Your task to perform on an android device: make emails show in primary in the gmail app Image 0: 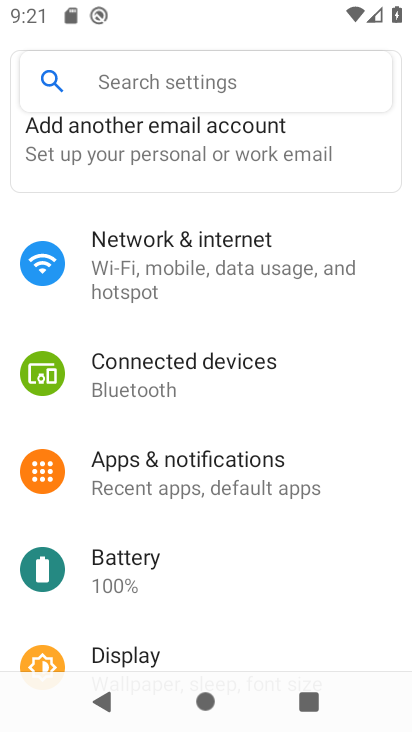
Step 0: press home button
Your task to perform on an android device: make emails show in primary in the gmail app Image 1: 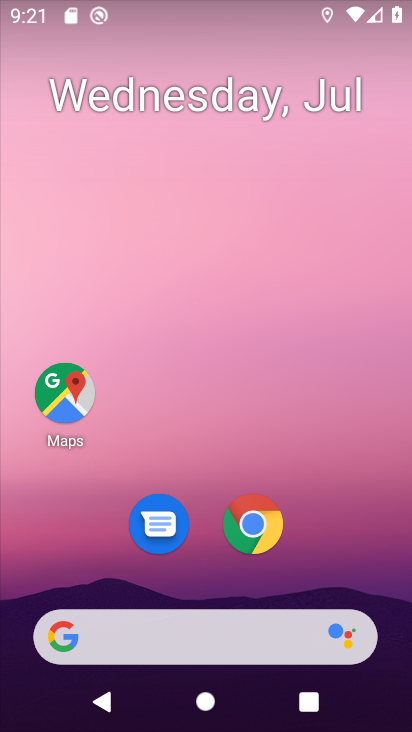
Step 1: drag from (316, 562) to (339, 73)
Your task to perform on an android device: make emails show in primary in the gmail app Image 2: 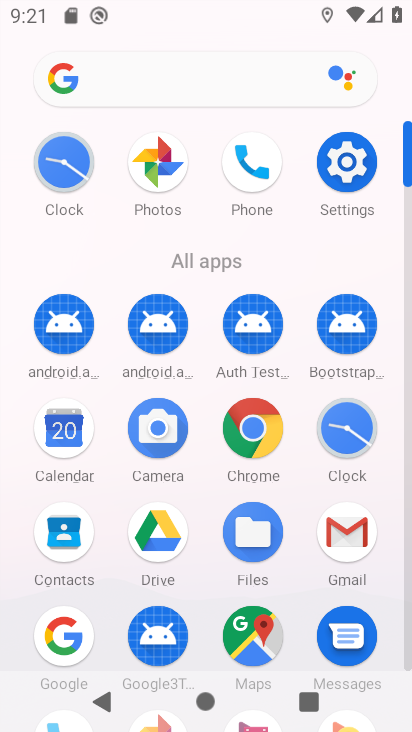
Step 2: click (331, 527)
Your task to perform on an android device: make emails show in primary in the gmail app Image 3: 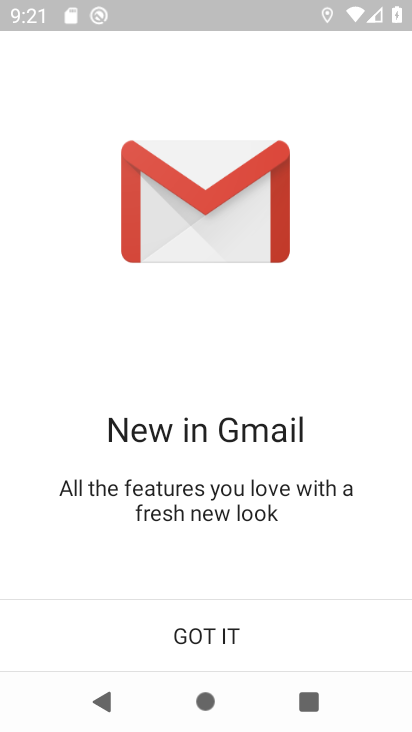
Step 3: click (229, 632)
Your task to perform on an android device: make emails show in primary in the gmail app Image 4: 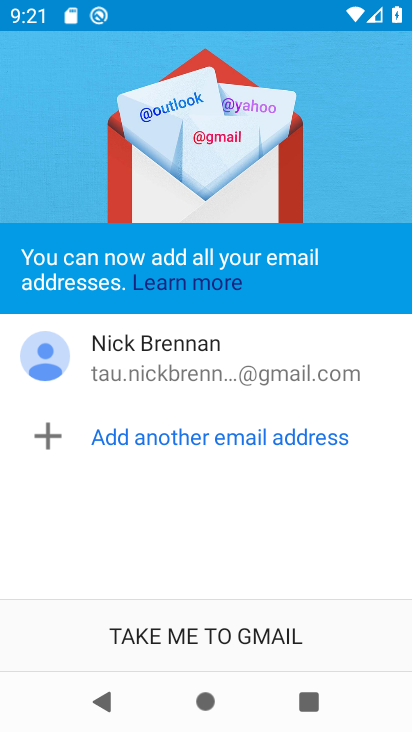
Step 4: click (229, 630)
Your task to perform on an android device: make emails show in primary in the gmail app Image 5: 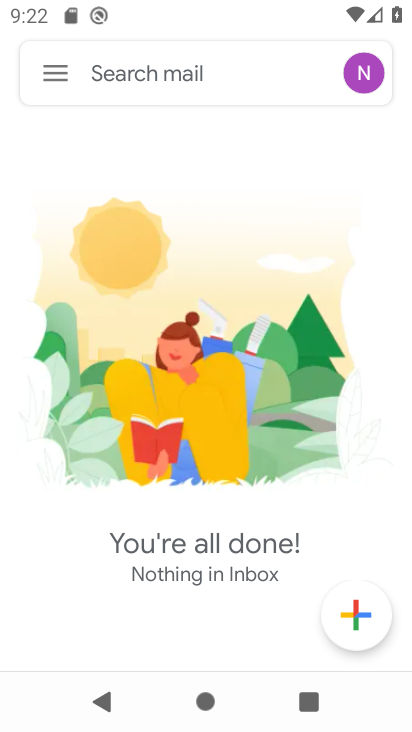
Step 5: click (54, 71)
Your task to perform on an android device: make emails show in primary in the gmail app Image 6: 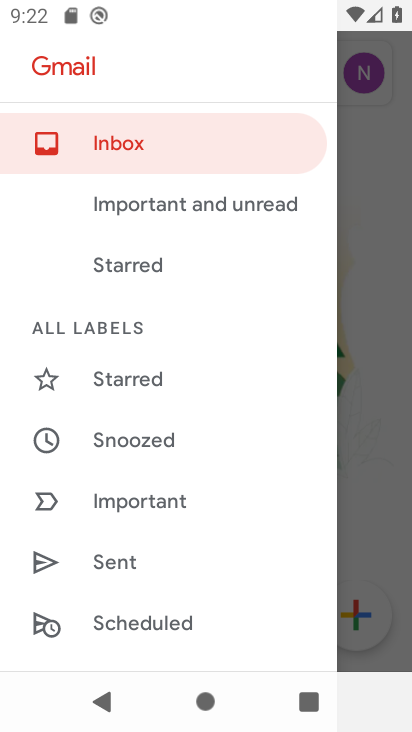
Step 6: drag from (185, 557) to (205, 119)
Your task to perform on an android device: make emails show in primary in the gmail app Image 7: 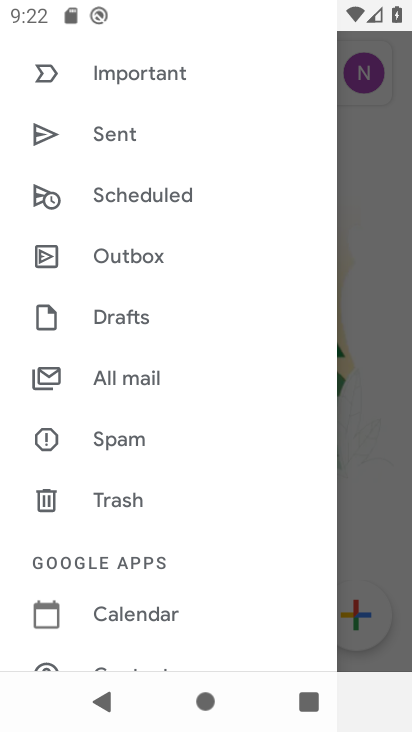
Step 7: drag from (178, 441) to (187, 172)
Your task to perform on an android device: make emails show in primary in the gmail app Image 8: 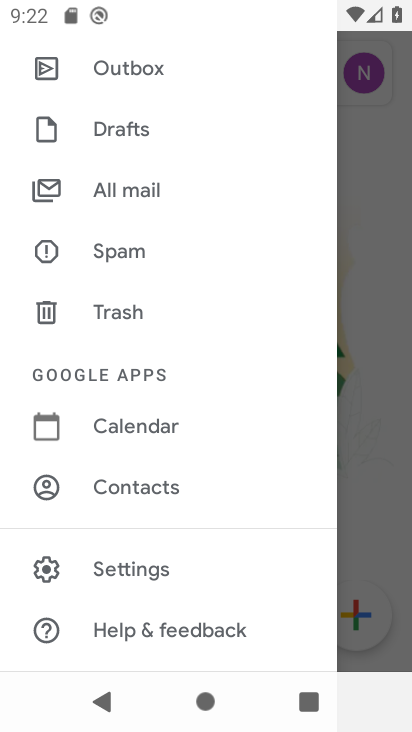
Step 8: click (146, 566)
Your task to perform on an android device: make emails show in primary in the gmail app Image 9: 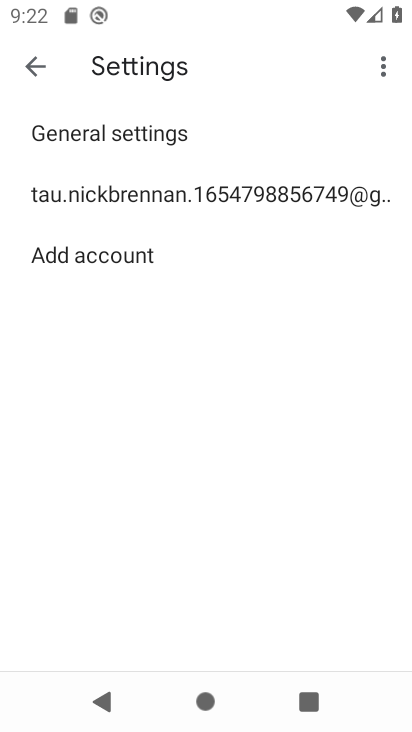
Step 9: click (223, 191)
Your task to perform on an android device: make emails show in primary in the gmail app Image 10: 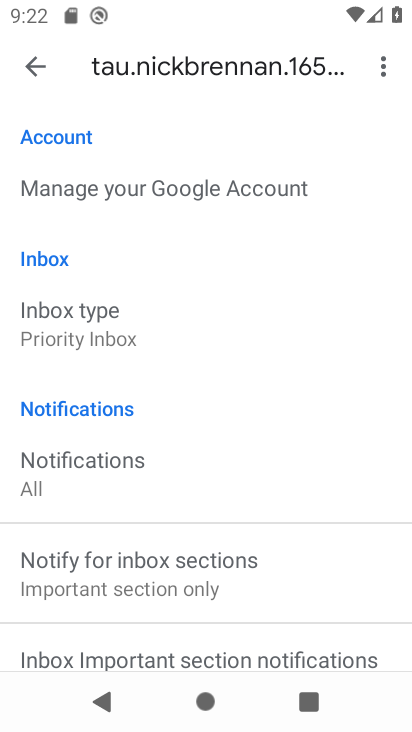
Step 10: click (93, 325)
Your task to perform on an android device: make emails show in primary in the gmail app Image 11: 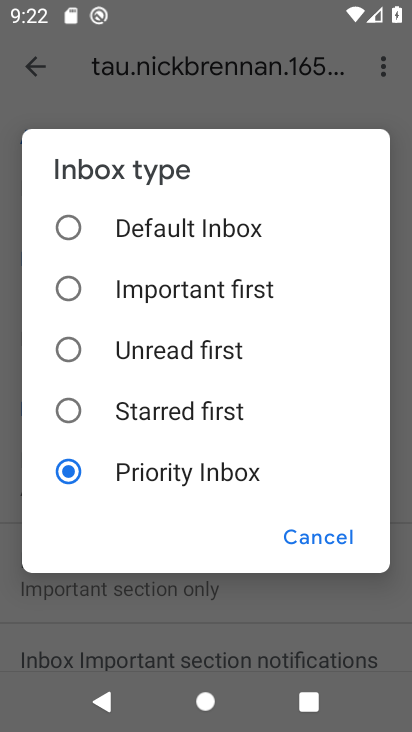
Step 11: click (66, 224)
Your task to perform on an android device: make emails show in primary in the gmail app Image 12: 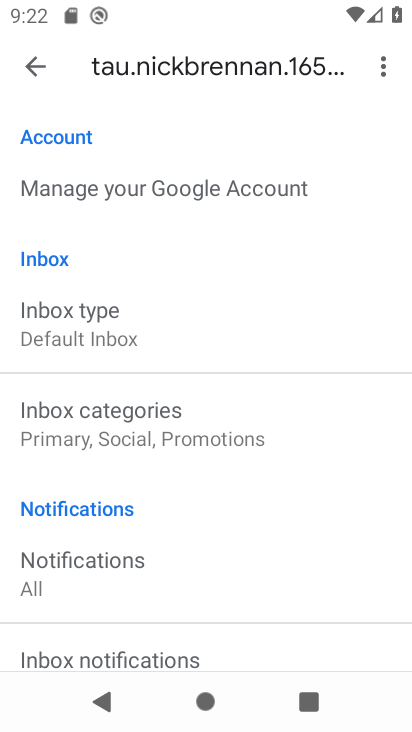
Step 12: click (116, 412)
Your task to perform on an android device: make emails show in primary in the gmail app Image 13: 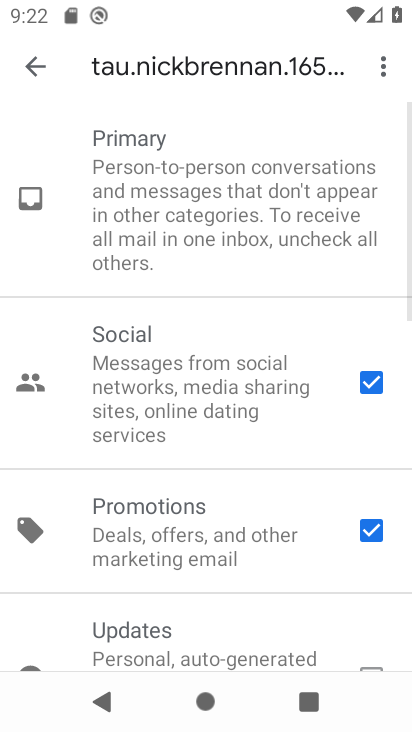
Step 13: click (372, 377)
Your task to perform on an android device: make emails show in primary in the gmail app Image 14: 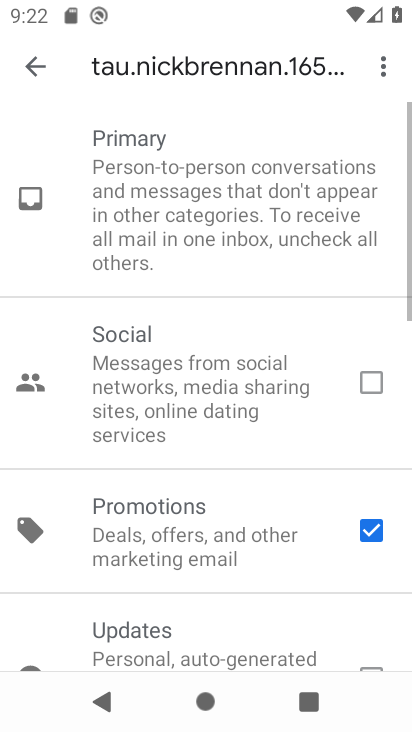
Step 14: click (376, 528)
Your task to perform on an android device: make emails show in primary in the gmail app Image 15: 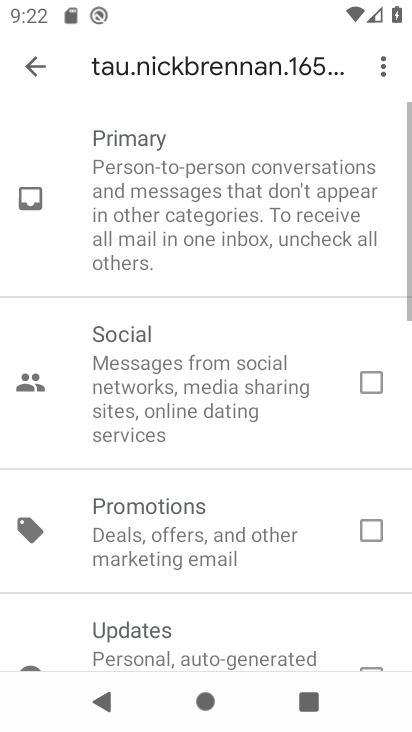
Step 15: click (45, 72)
Your task to perform on an android device: make emails show in primary in the gmail app Image 16: 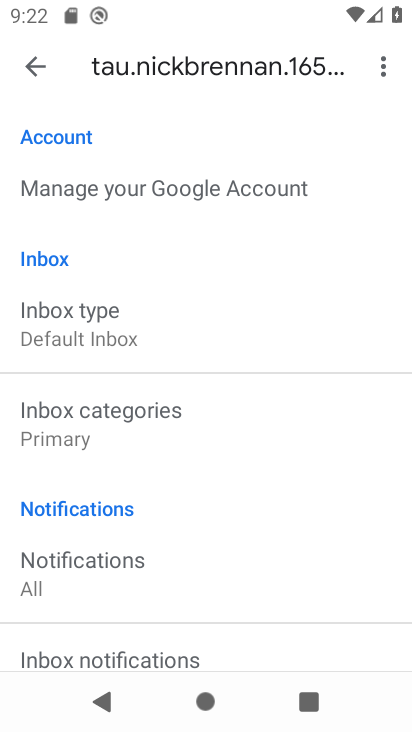
Step 16: task complete